Your task to perform on an android device: change alarm snooze length Image 0: 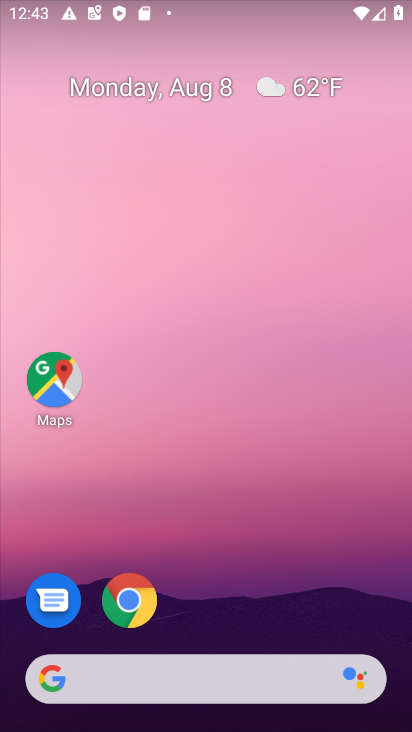
Step 0: drag from (214, 619) to (232, 239)
Your task to perform on an android device: change alarm snooze length Image 1: 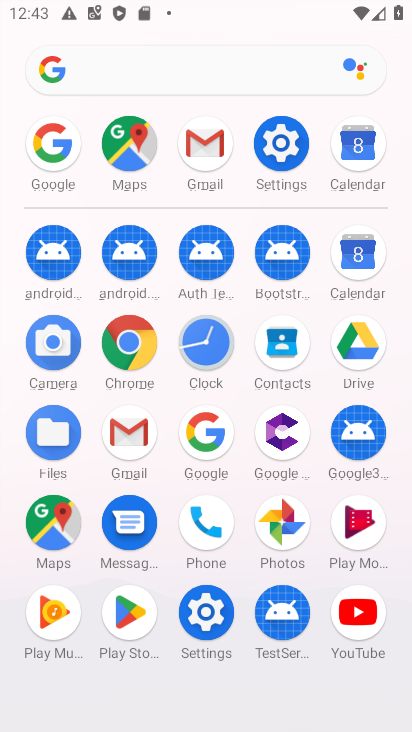
Step 1: click (216, 330)
Your task to perform on an android device: change alarm snooze length Image 2: 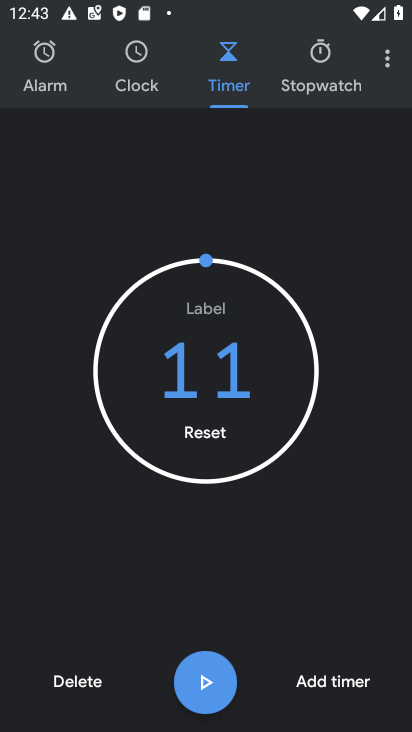
Step 2: click (387, 64)
Your task to perform on an android device: change alarm snooze length Image 3: 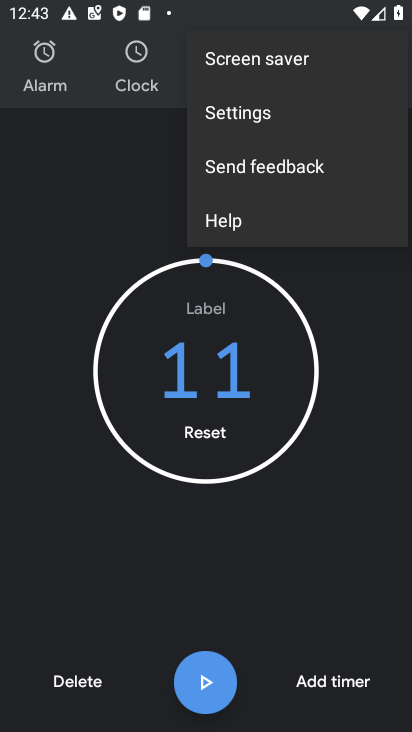
Step 3: click (276, 109)
Your task to perform on an android device: change alarm snooze length Image 4: 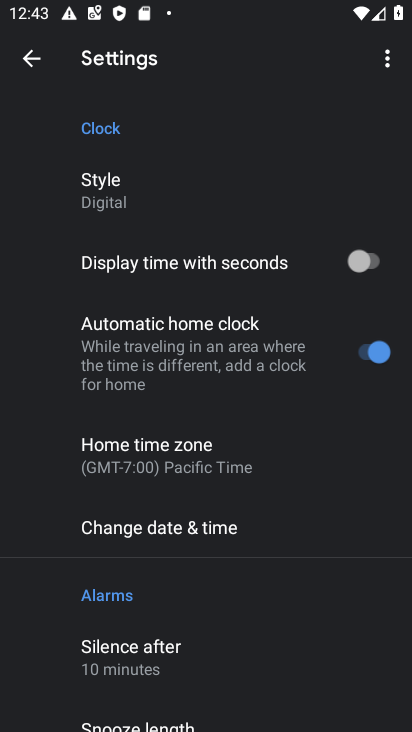
Step 4: click (212, 403)
Your task to perform on an android device: change alarm snooze length Image 5: 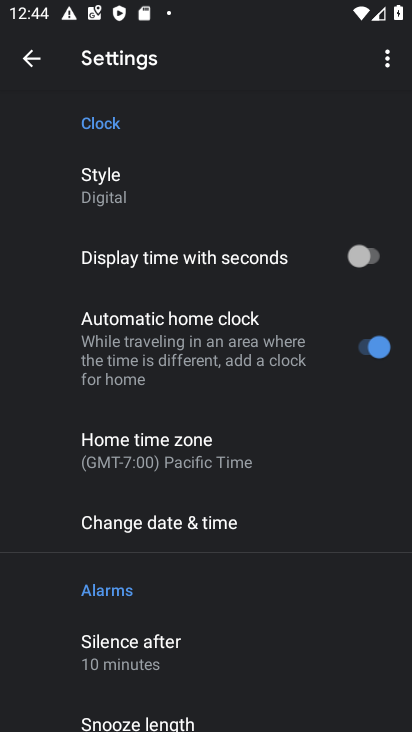
Step 5: click (198, 719)
Your task to perform on an android device: change alarm snooze length Image 6: 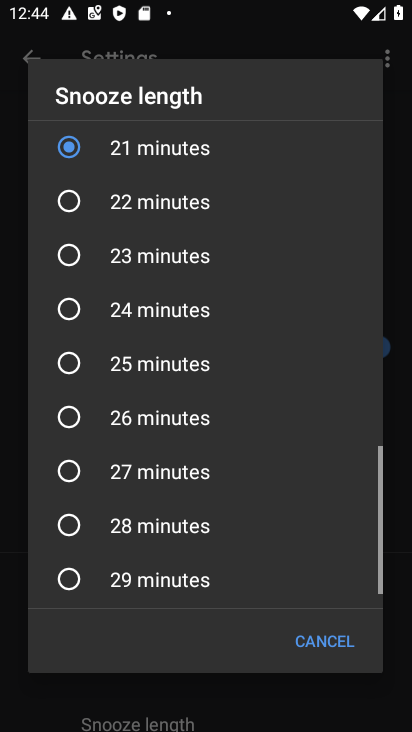
Step 6: click (128, 501)
Your task to perform on an android device: change alarm snooze length Image 7: 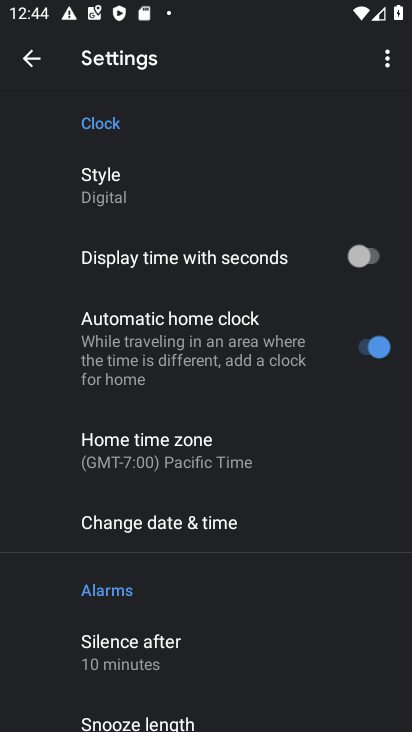
Step 7: task complete